Your task to perform on an android device: Go to wifi settings Image 0: 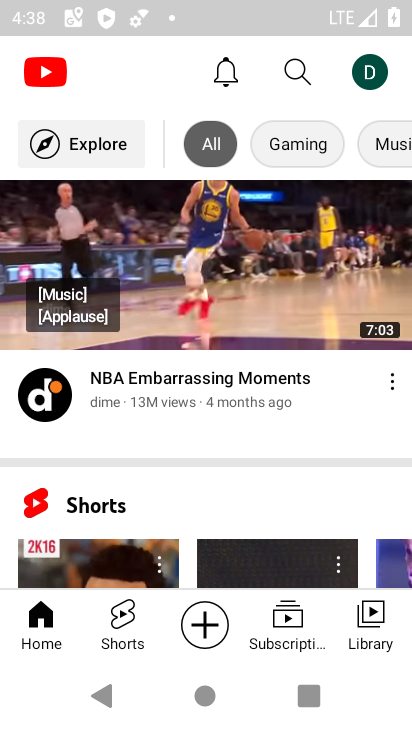
Step 0: press home button
Your task to perform on an android device: Go to wifi settings Image 1: 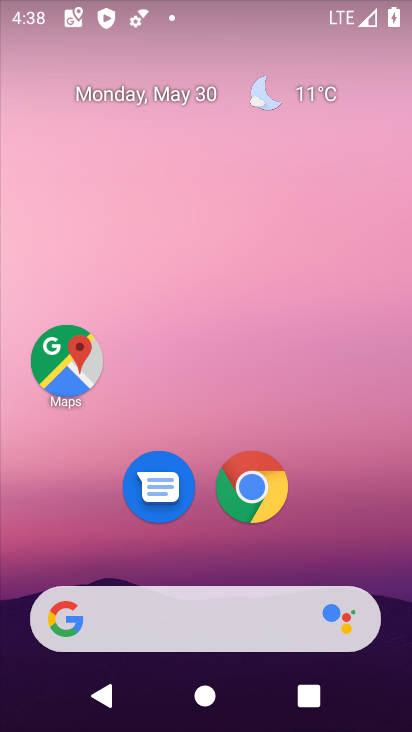
Step 1: drag from (405, 629) to (333, 130)
Your task to perform on an android device: Go to wifi settings Image 2: 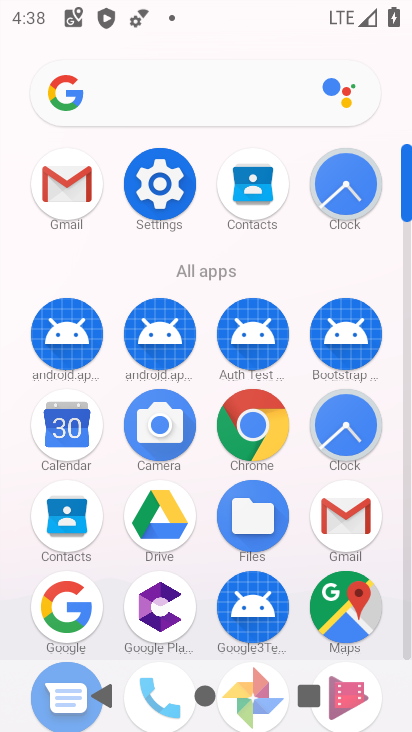
Step 2: click (408, 640)
Your task to perform on an android device: Go to wifi settings Image 3: 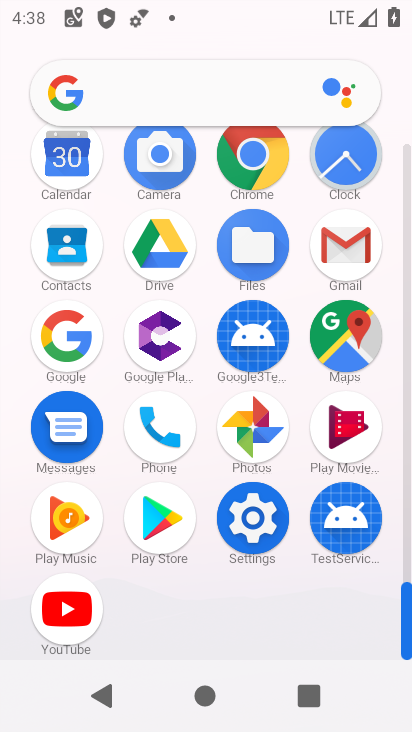
Step 3: click (255, 516)
Your task to perform on an android device: Go to wifi settings Image 4: 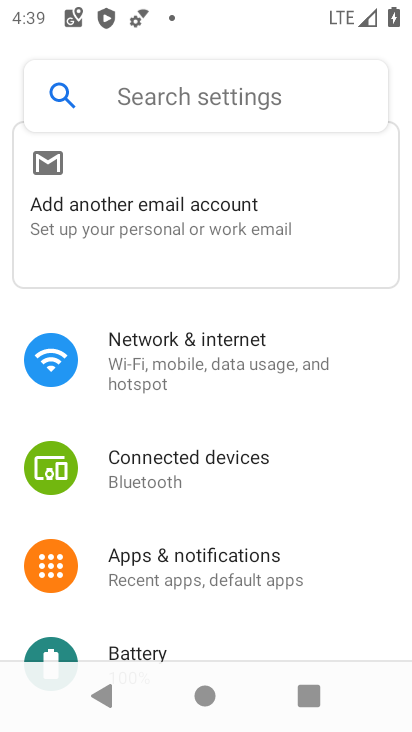
Step 4: click (180, 334)
Your task to perform on an android device: Go to wifi settings Image 5: 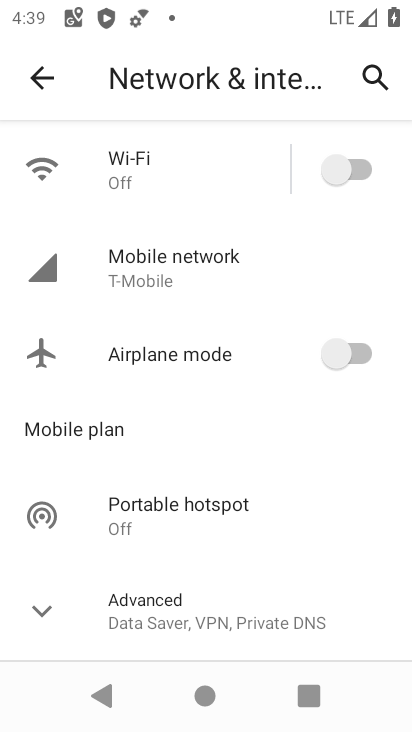
Step 5: click (110, 163)
Your task to perform on an android device: Go to wifi settings Image 6: 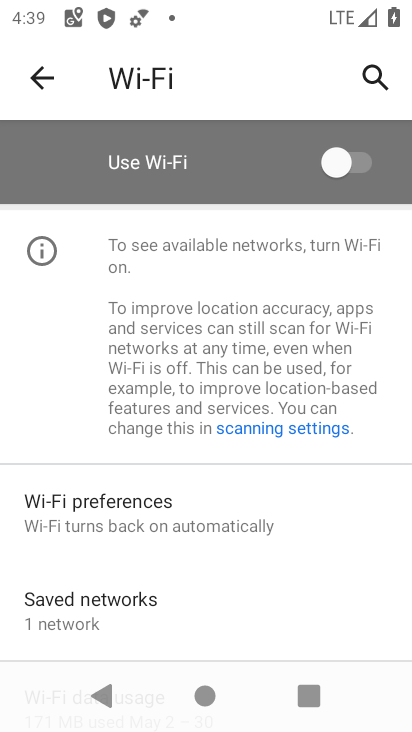
Step 6: task complete